Your task to perform on an android device: set an alarm Image 0: 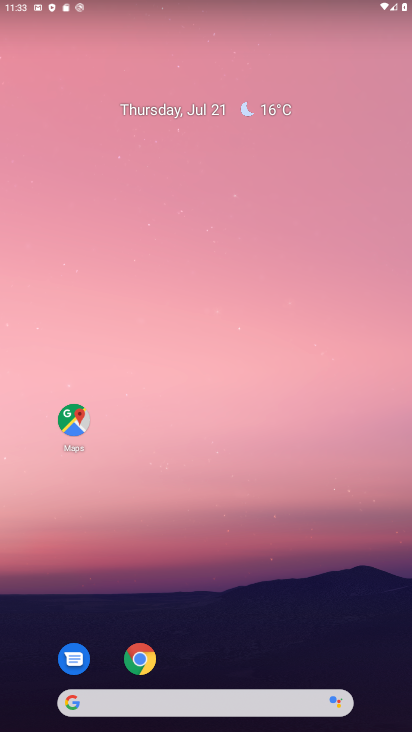
Step 0: drag from (210, 651) to (228, 126)
Your task to perform on an android device: set an alarm Image 1: 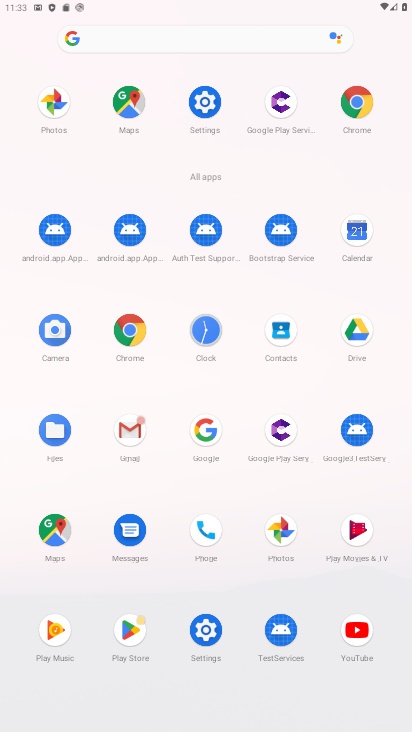
Step 1: click (212, 329)
Your task to perform on an android device: set an alarm Image 2: 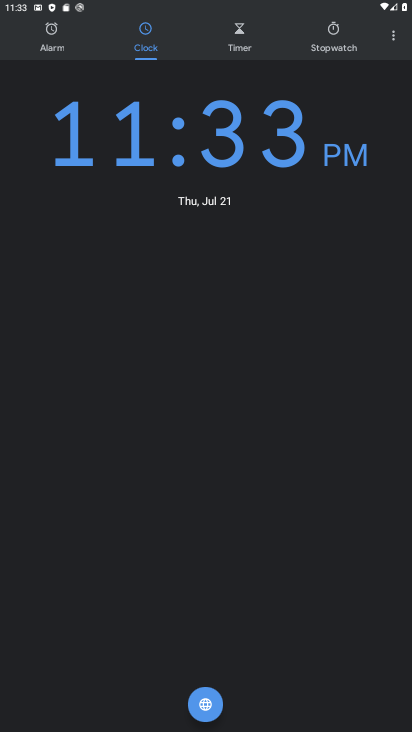
Step 2: click (58, 33)
Your task to perform on an android device: set an alarm Image 3: 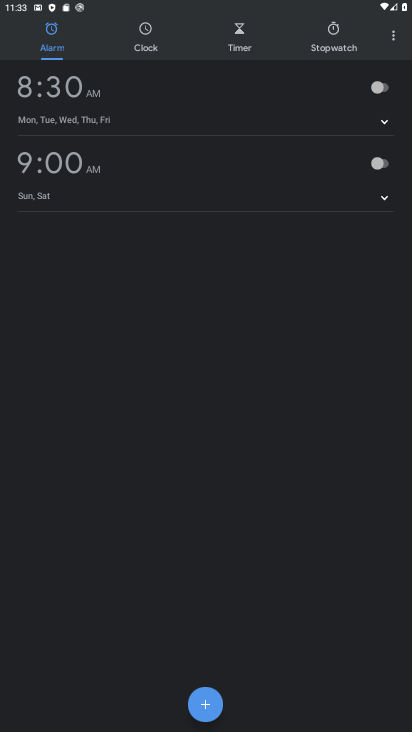
Step 3: click (380, 86)
Your task to perform on an android device: set an alarm Image 4: 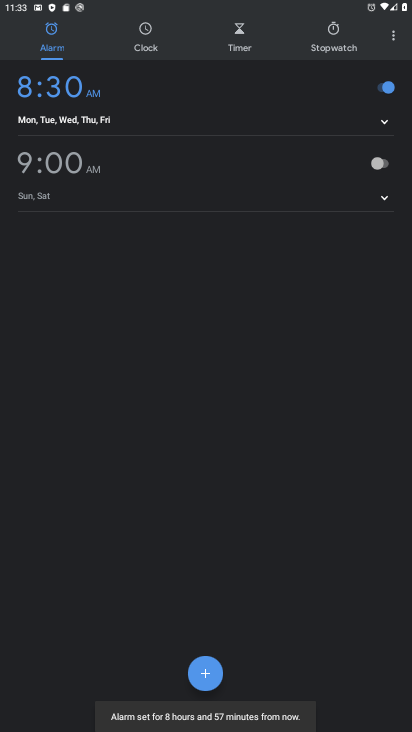
Step 4: task complete